Your task to perform on an android device: What's on my calendar today? Image 0: 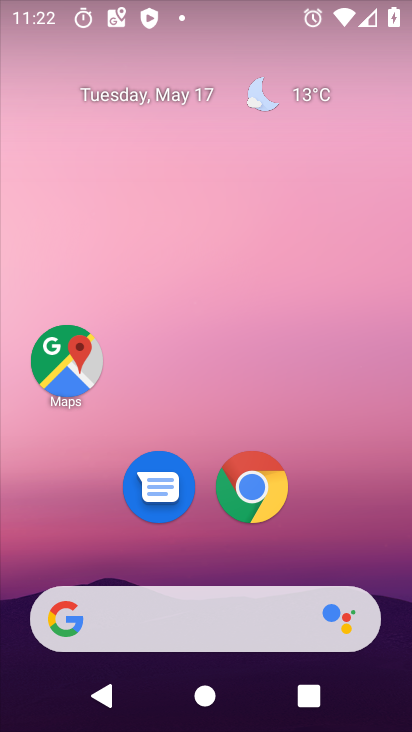
Step 0: drag from (184, 720) to (172, 49)
Your task to perform on an android device: What's on my calendar today? Image 1: 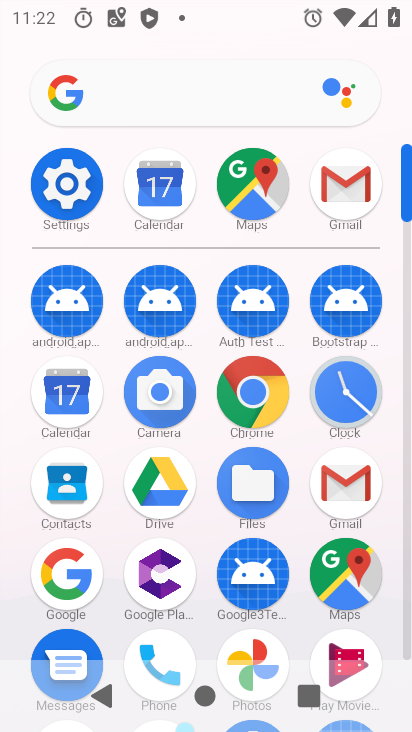
Step 1: click (71, 394)
Your task to perform on an android device: What's on my calendar today? Image 2: 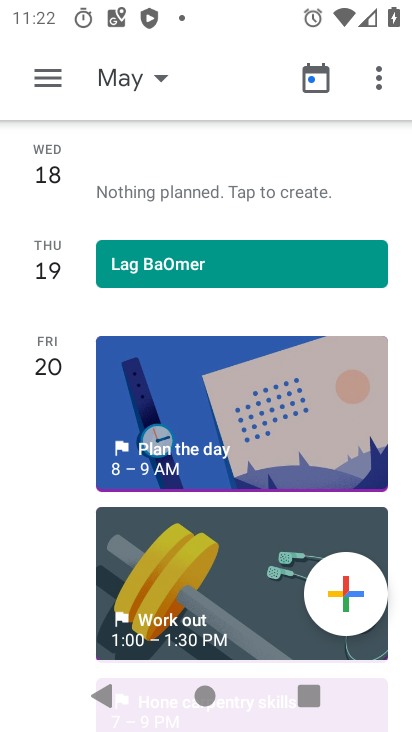
Step 2: click (119, 79)
Your task to perform on an android device: What's on my calendar today? Image 3: 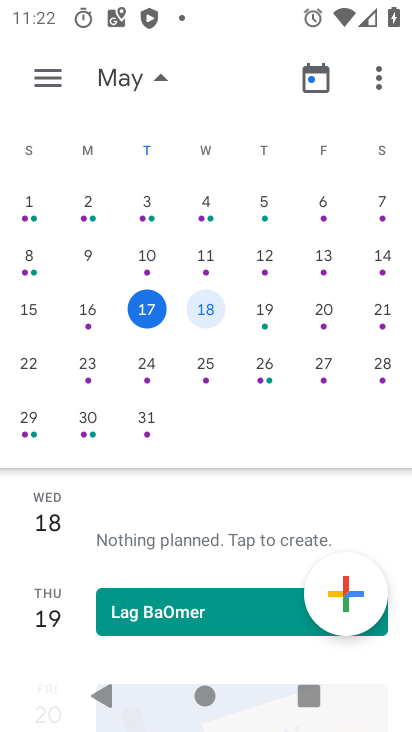
Step 3: click (146, 307)
Your task to perform on an android device: What's on my calendar today? Image 4: 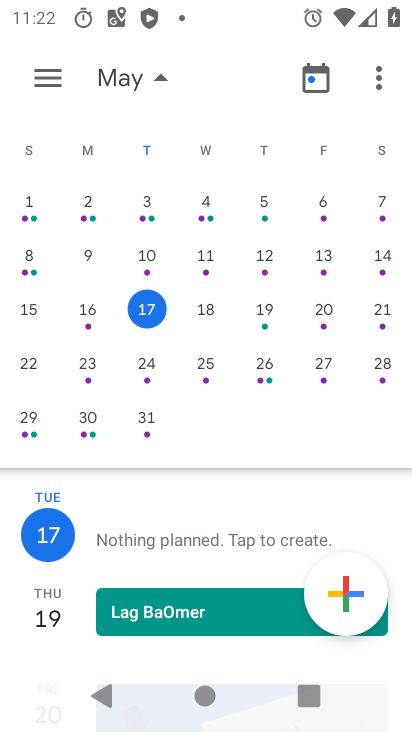
Step 4: click (155, 518)
Your task to perform on an android device: What's on my calendar today? Image 5: 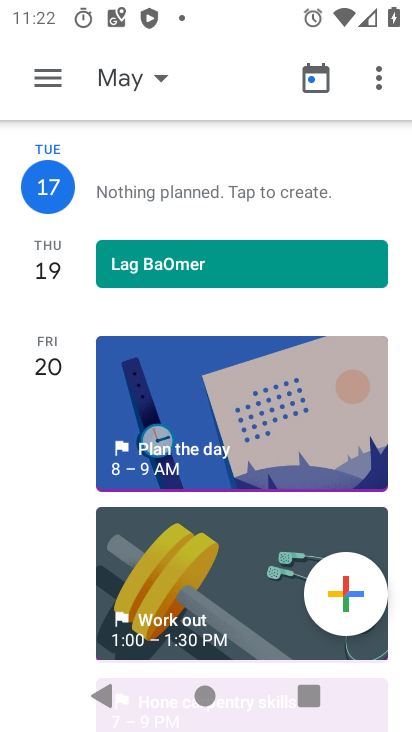
Step 5: task complete